Your task to perform on an android device: remove spam from my inbox in the gmail app Image 0: 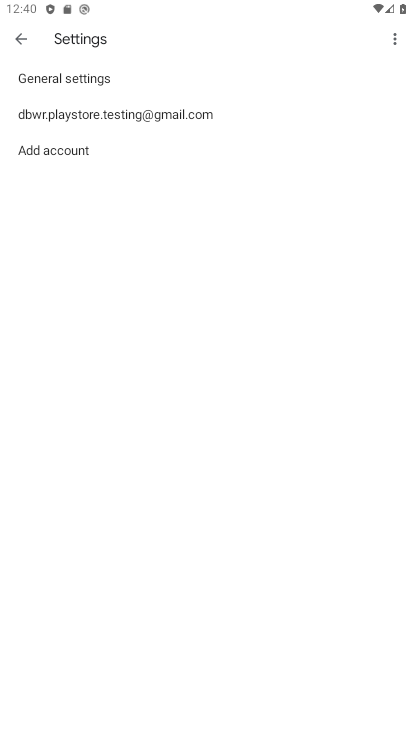
Step 0: press home button
Your task to perform on an android device: remove spam from my inbox in the gmail app Image 1: 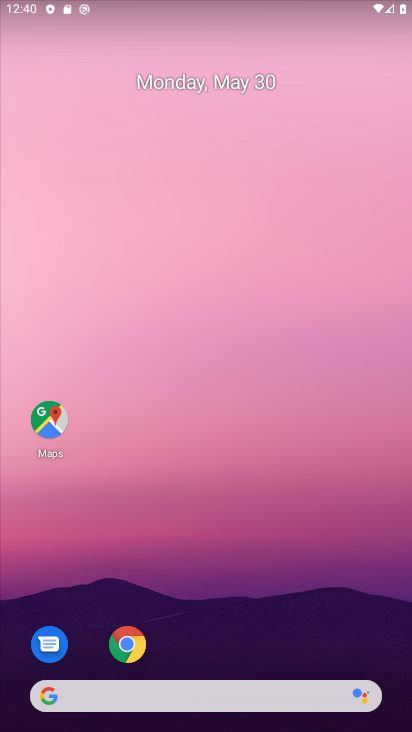
Step 1: drag from (366, 628) to (264, 226)
Your task to perform on an android device: remove spam from my inbox in the gmail app Image 2: 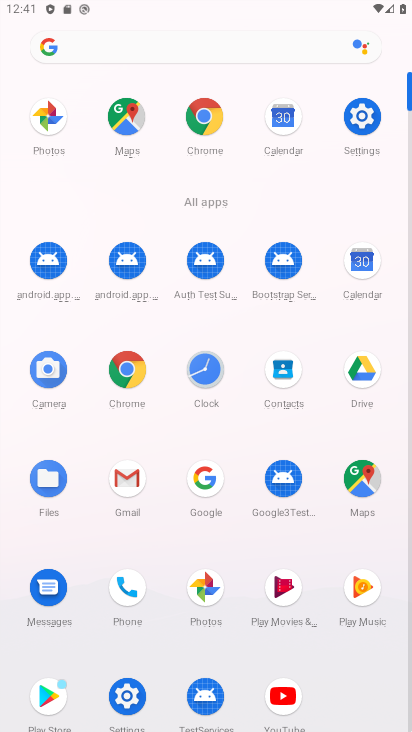
Step 2: click (129, 472)
Your task to perform on an android device: remove spam from my inbox in the gmail app Image 3: 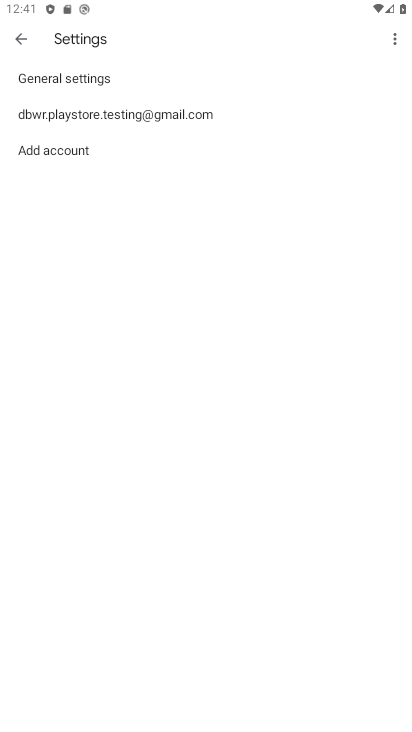
Step 3: click (134, 120)
Your task to perform on an android device: remove spam from my inbox in the gmail app Image 4: 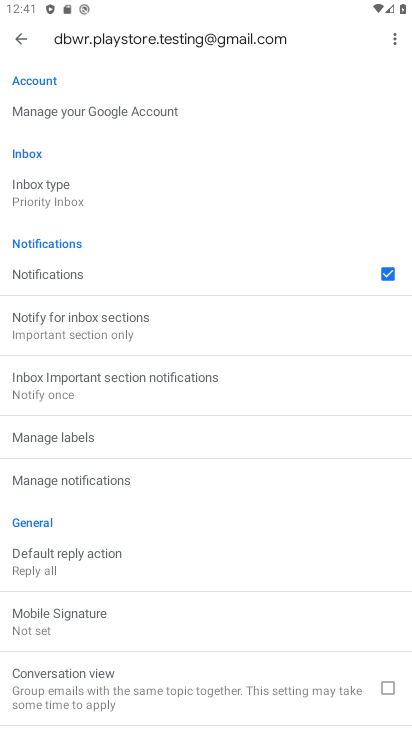
Step 4: click (40, 49)
Your task to perform on an android device: remove spam from my inbox in the gmail app Image 5: 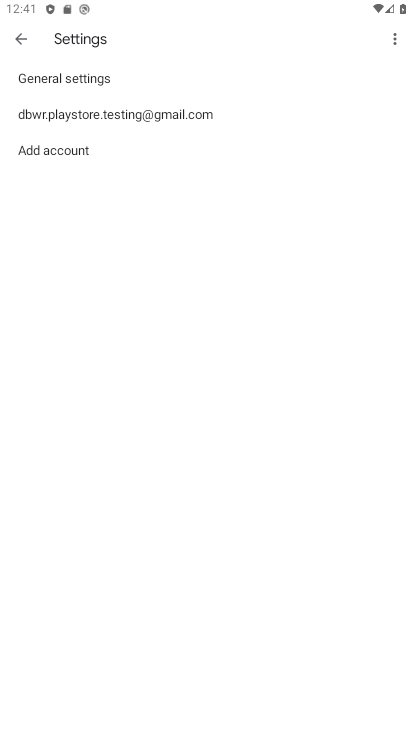
Step 5: click (41, 48)
Your task to perform on an android device: remove spam from my inbox in the gmail app Image 6: 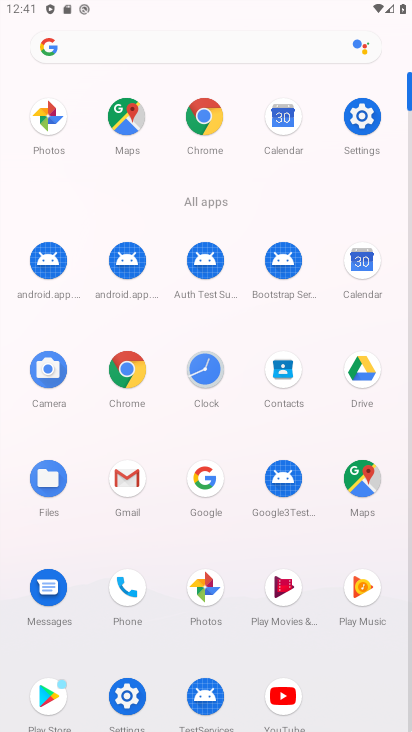
Step 6: click (116, 467)
Your task to perform on an android device: remove spam from my inbox in the gmail app Image 7: 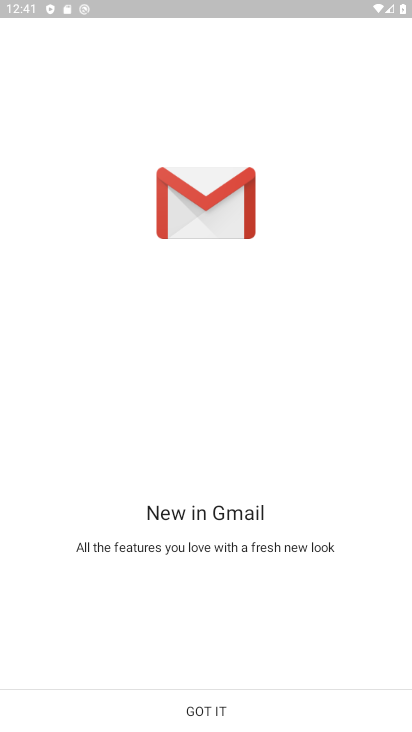
Step 7: click (240, 717)
Your task to perform on an android device: remove spam from my inbox in the gmail app Image 8: 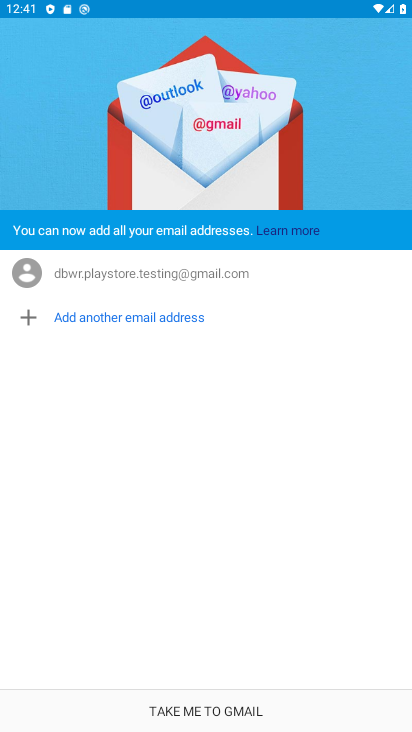
Step 8: click (240, 717)
Your task to perform on an android device: remove spam from my inbox in the gmail app Image 9: 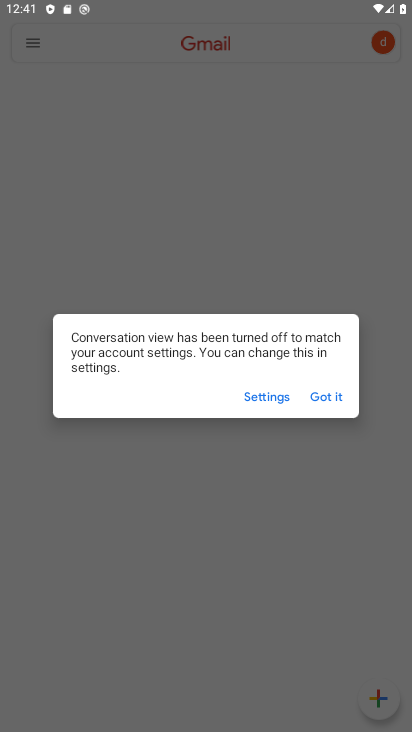
Step 9: click (328, 404)
Your task to perform on an android device: remove spam from my inbox in the gmail app Image 10: 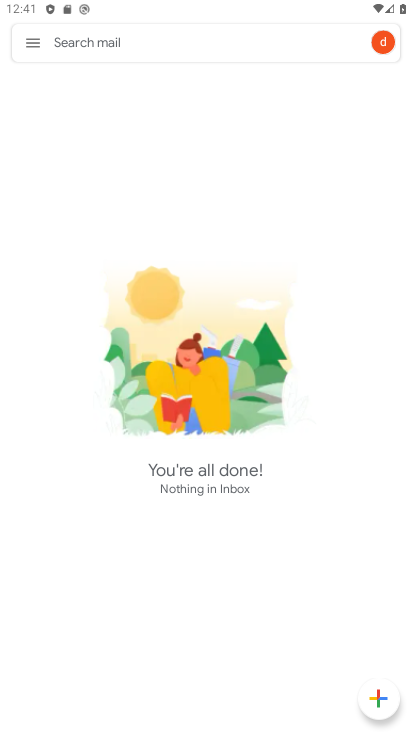
Step 10: click (20, 35)
Your task to perform on an android device: remove spam from my inbox in the gmail app Image 11: 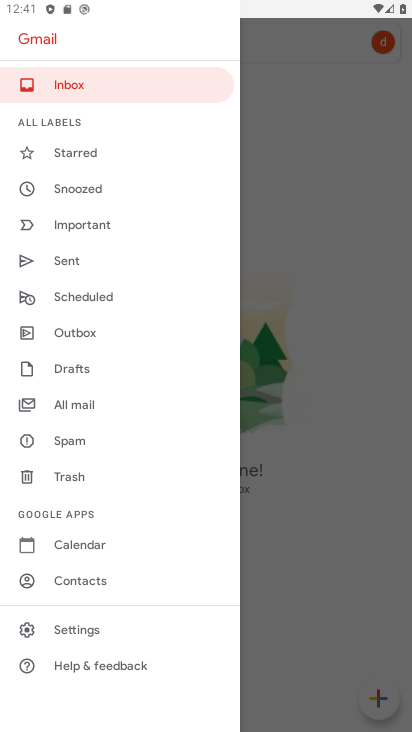
Step 11: click (92, 433)
Your task to perform on an android device: remove spam from my inbox in the gmail app Image 12: 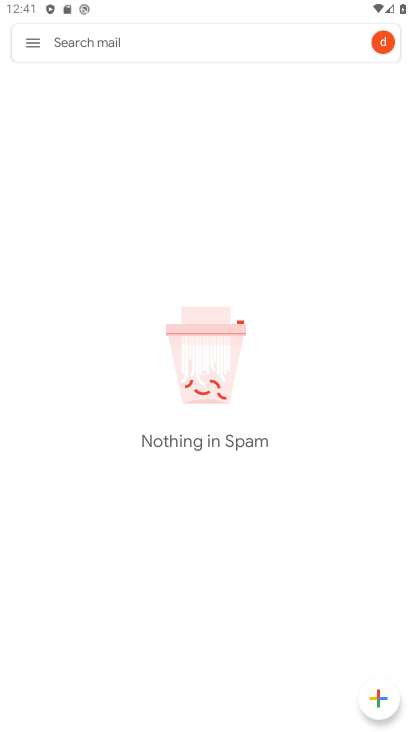
Step 12: task complete